Your task to perform on an android device: Play the last video I watched on Youtube Image 0: 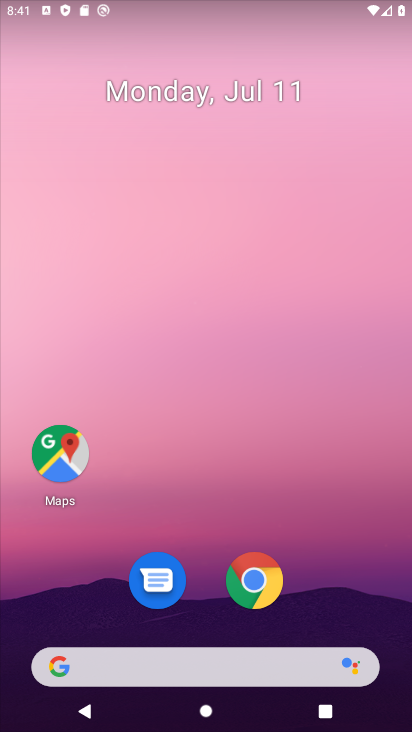
Step 0: drag from (316, 593) to (276, 7)
Your task to perform on an android device: Play the last video I watched on Youtube Image 1: 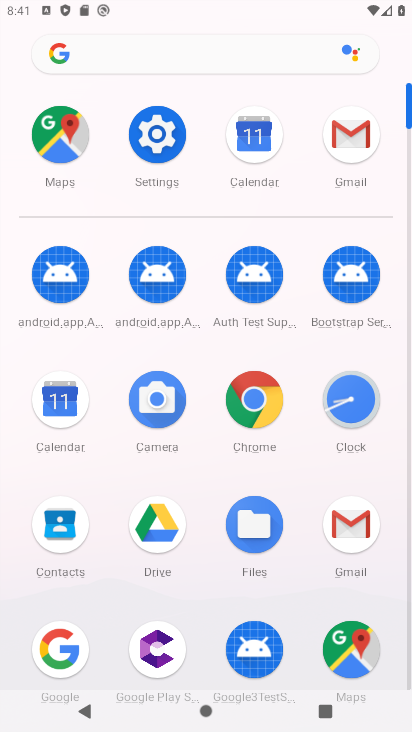
Step 1: drag from (194, 497) to (201, 180)
Your task to perform on an android device: Play the last video I watched on Youtube Image 2: 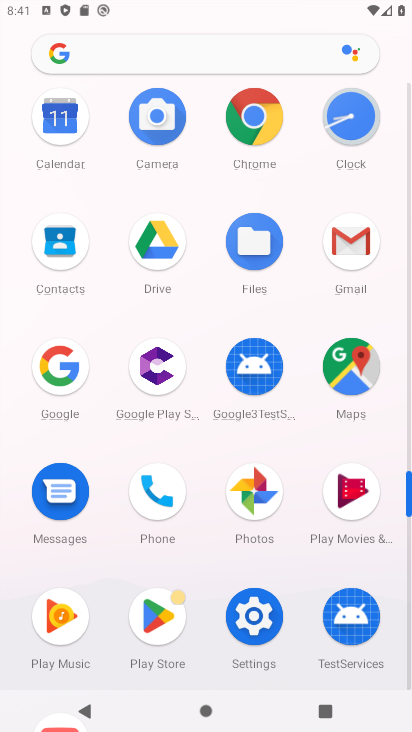
Step 2: drag from (206, 430) to (213, 227)
Your task to perform on an android device: Play the last video I watched on Youtube Image 3: 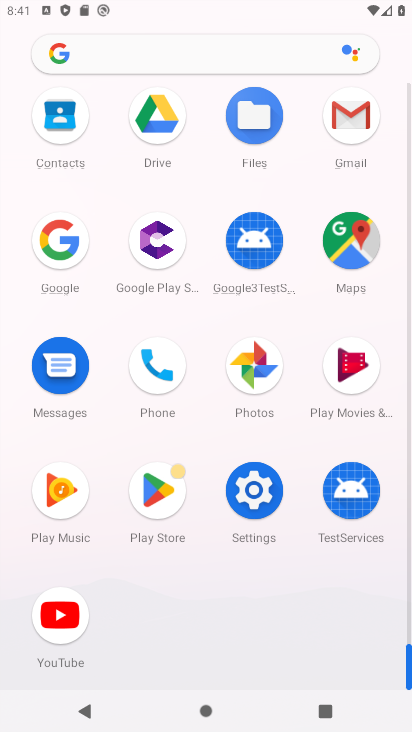
Step 3: click (53, 616)
Your task to perform on an android device: Play the last video I watched on Youtube Image 4: 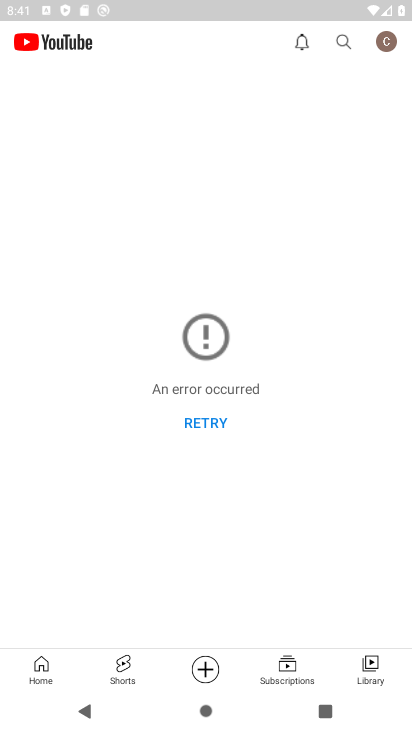
Step 4: click (373, 662)
Your task to perform on an android device: Play the last video I watched on Youtube Image 5: 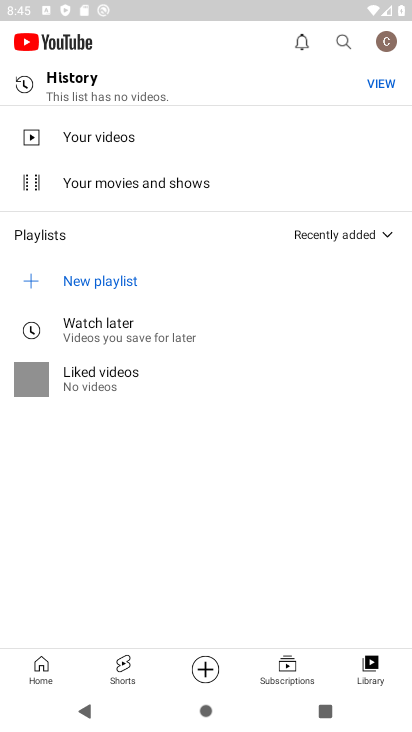
Step 5: task complete